Your task to perform on an android device: turn off sleep mode Image 0: 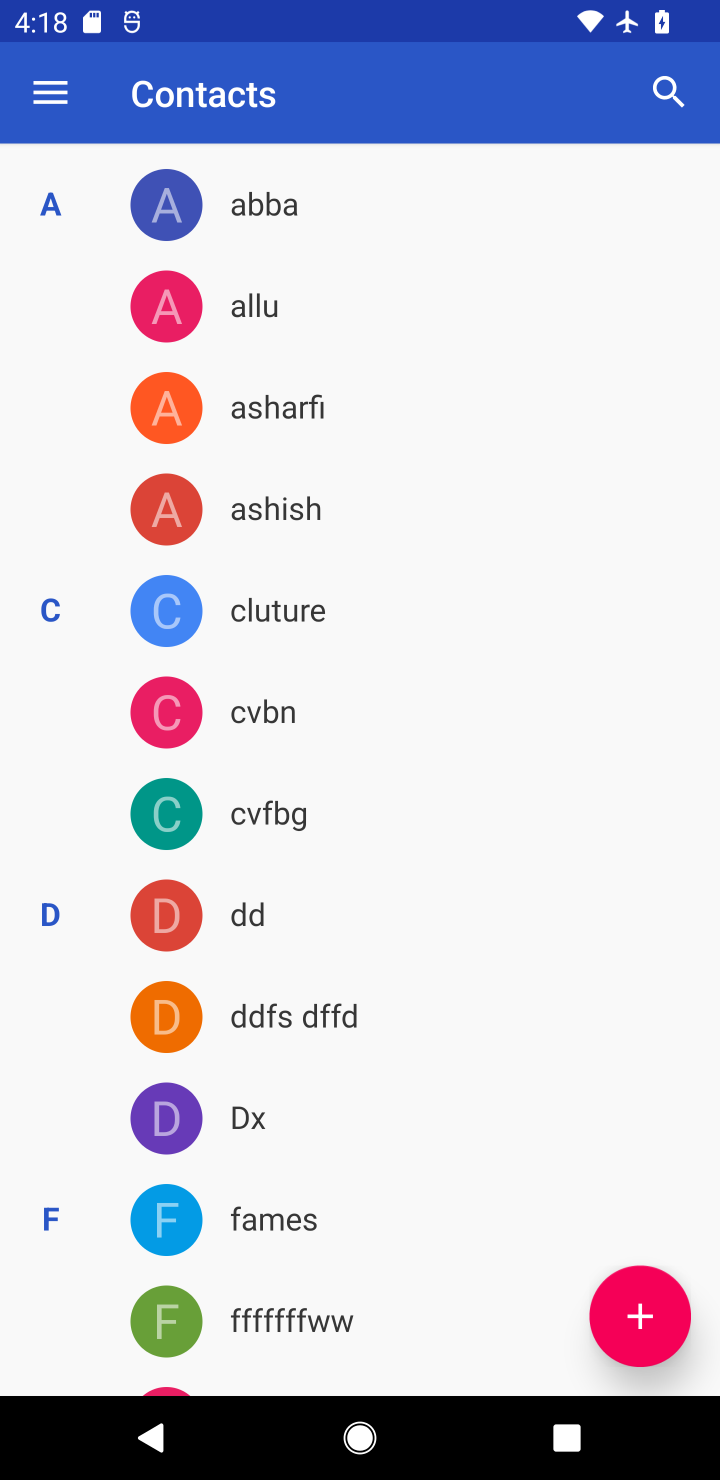
Step 0: press home button
Your task to perform on an android device: turn off sleep mode Image 1: 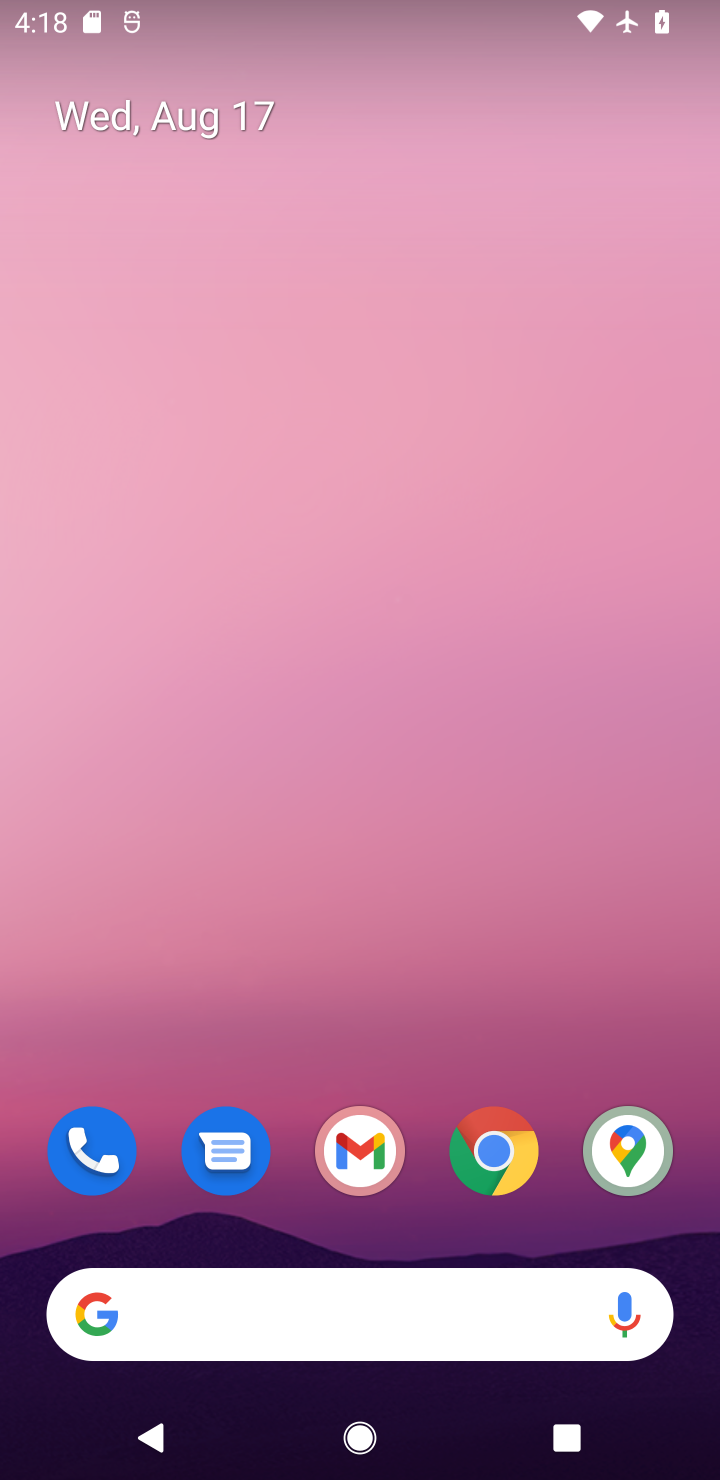
Step 1: drag from (368, 1116) to (375, 568)
Your task to perform on an android device: turn off sleep mode Image 2: 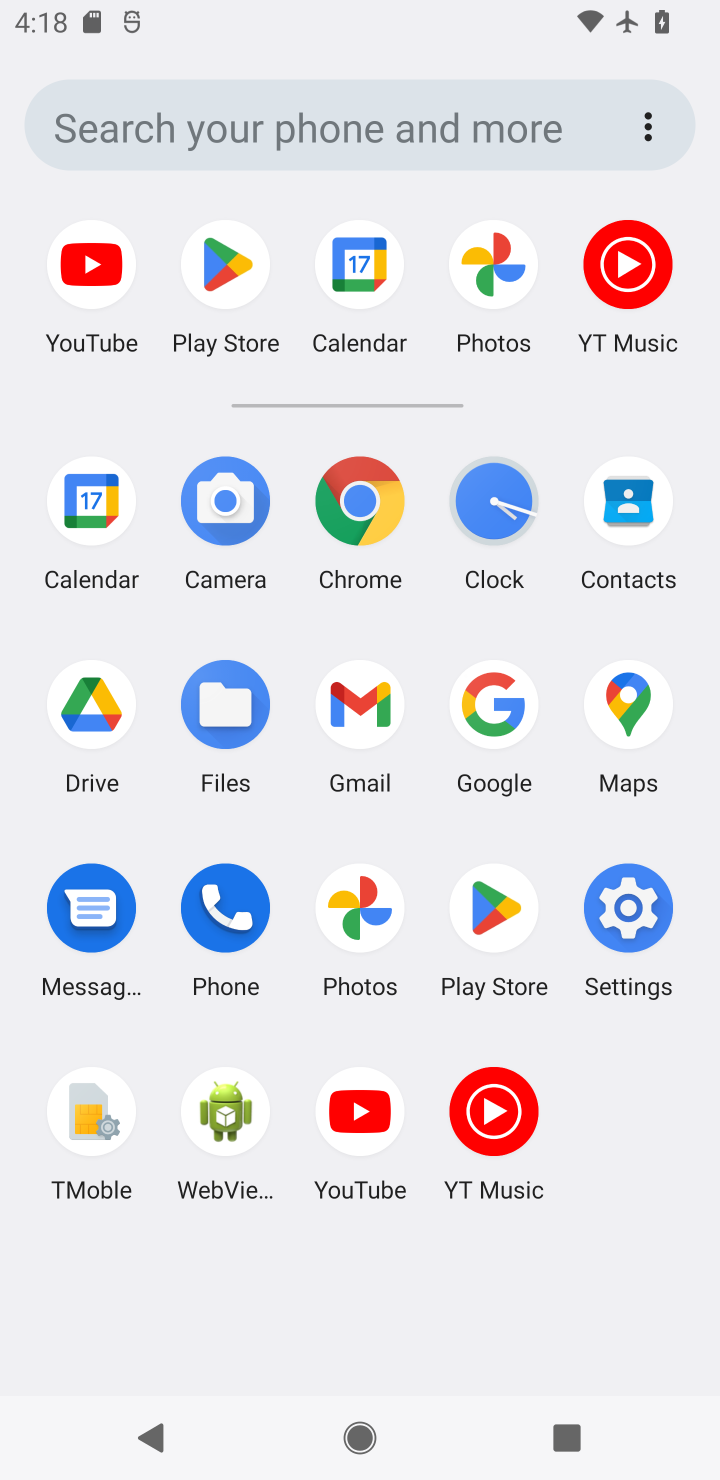
Step 2: click (642, 895)
Your task to perform on an android device: turn off sleep mode Image 3: 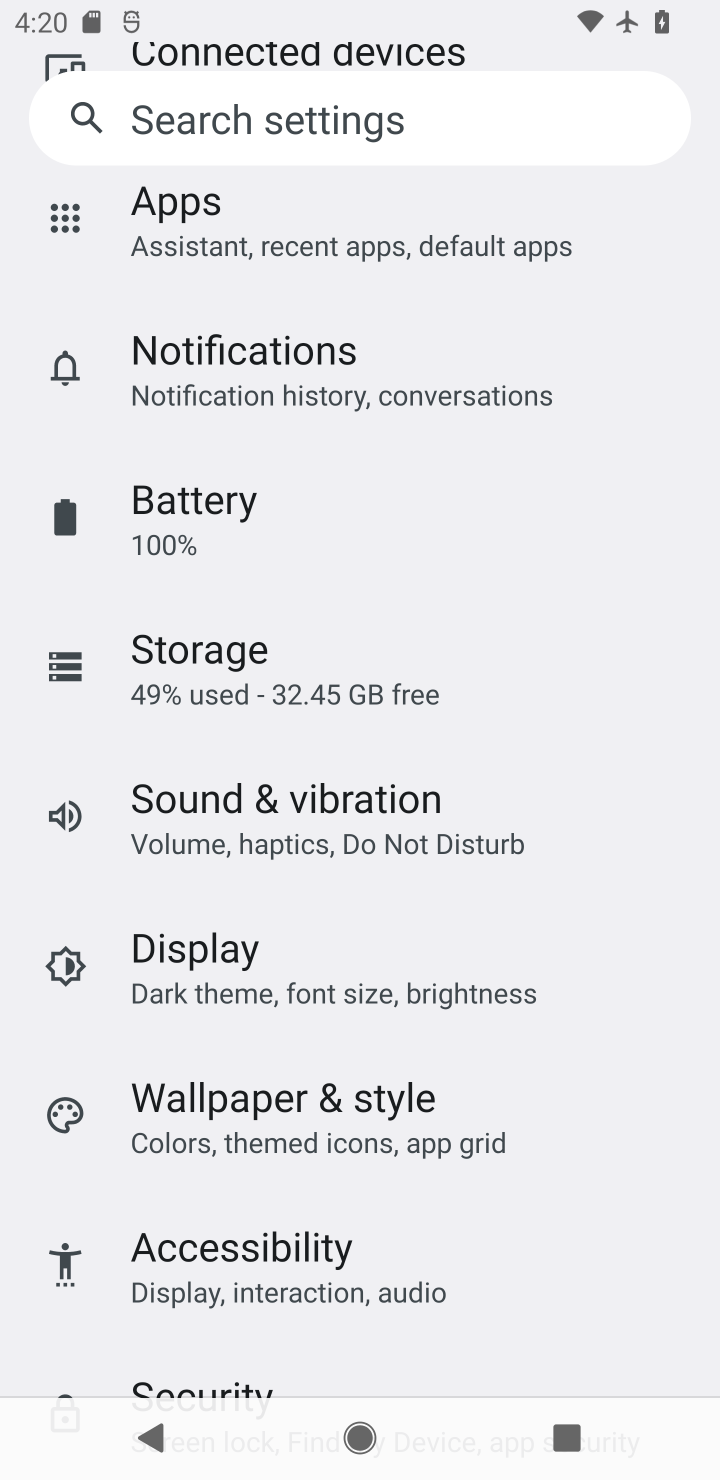
Step 3: task complete